Your task to perform on an android device: turn on the 24-hour format for clock Image 0: 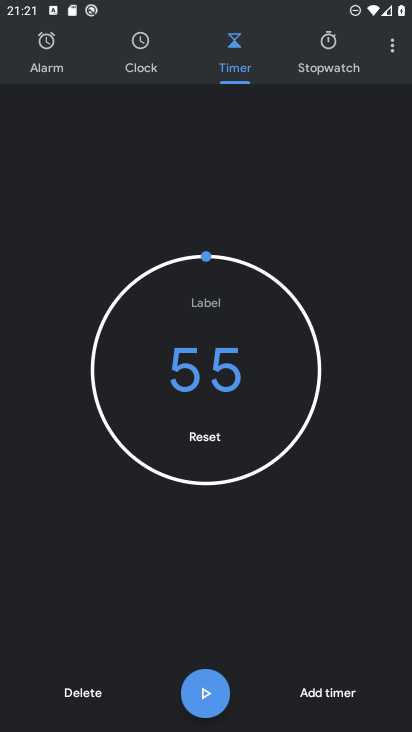
Step 0: press home button
Your task to perform on an android device: turn on the 24-hour format for clock Image 1: 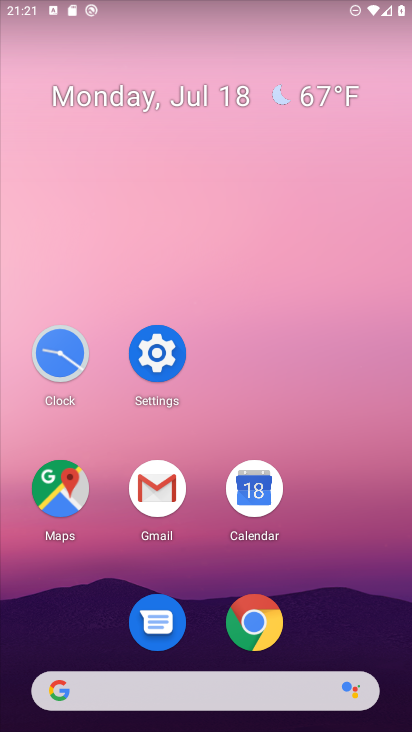
Step 1: click (61, 352)
Your task to perform on an android device: turn on the 24-hour format for clock Image 2: 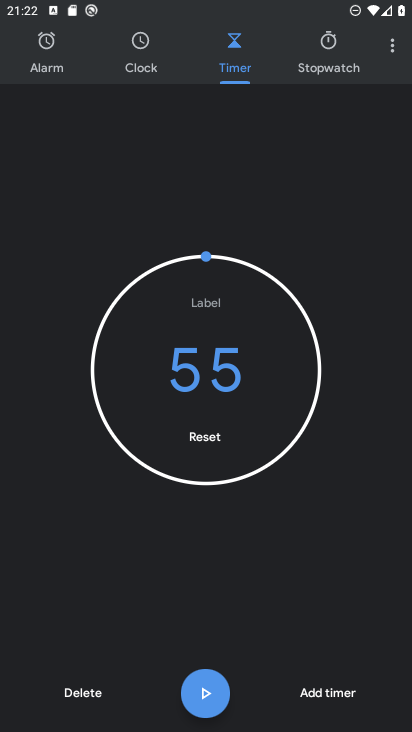
Step 2: click (389, 46)
Your task to perform on an android device: turn on the 24-hour format for clock Image 3: 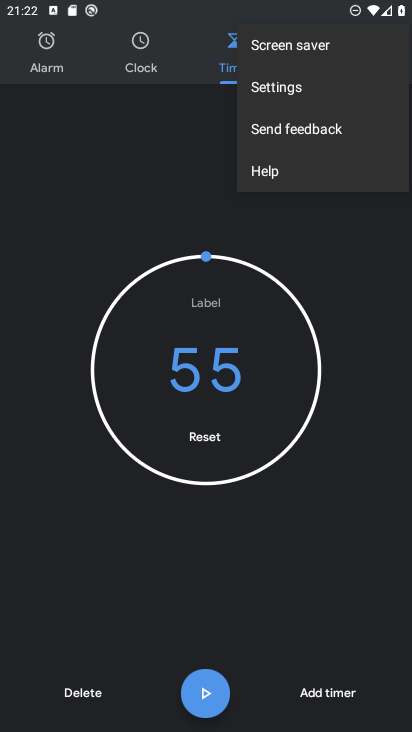
Step 3: click (279, 81)
Your task to perform on an android device: turn on the 24-hour format for clock Image 4: 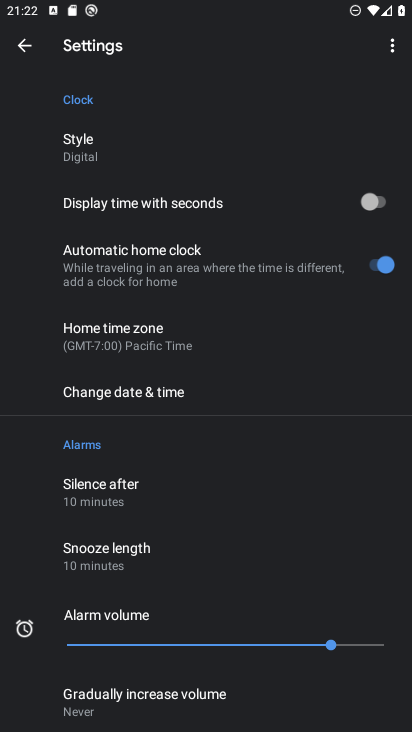
Step 4: click (134, 391)
Your task to perform on an android device: turn on the 24-hour format for clock Image 5: 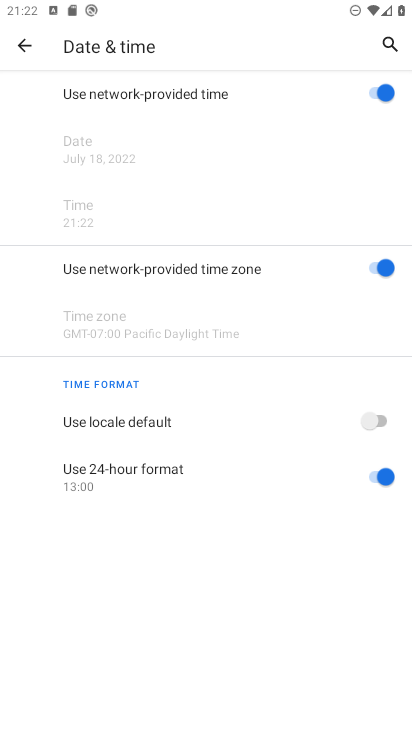
Step 5: task complete